Your task to perform on an android device: turn on data saver in the chrome app Image 0: 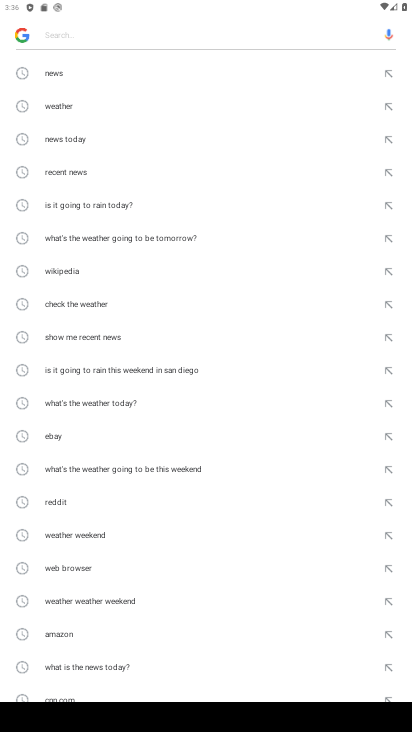
Step 0: press home button
Your task to perform on an android device: turn on data saver in the chrome app Image 1: 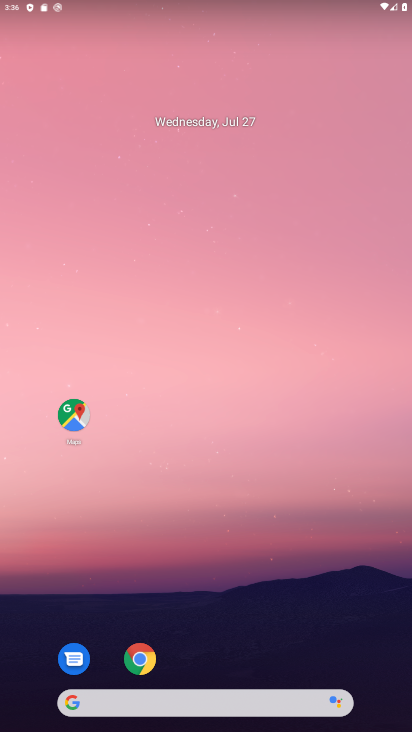
Step 1: click (132, 658)
Your task to perform on an android device: turn on data saver in the chrome app Image 2: 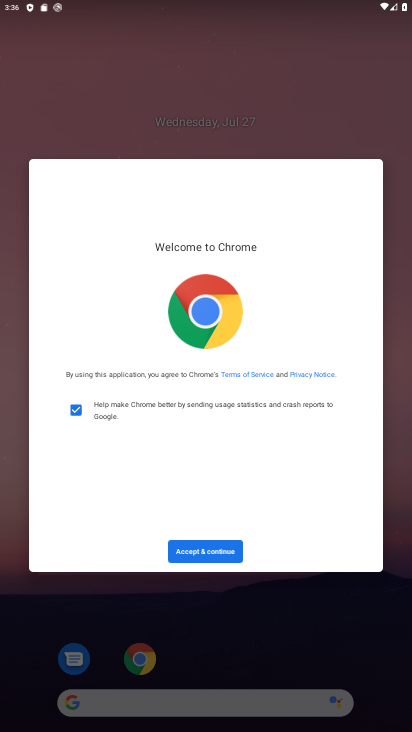
Step 2: click (203, 545)
Your task to perform on an android device: turn on data saver in the chrome app Image 3: 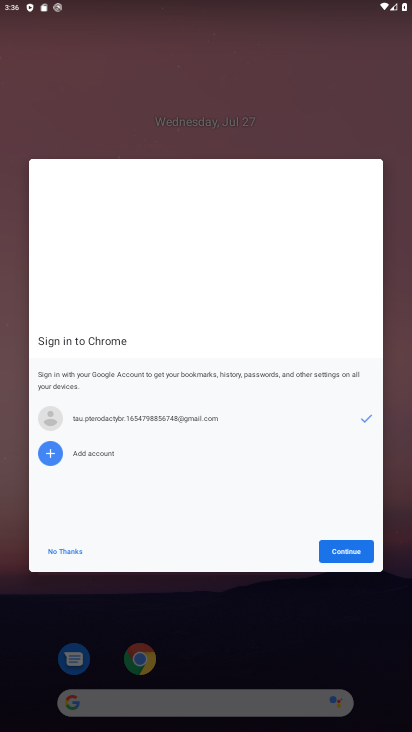
Step 3: click (350, 541)
Your task to perform on an android device: turn on data saver in the chrome app Image 4: 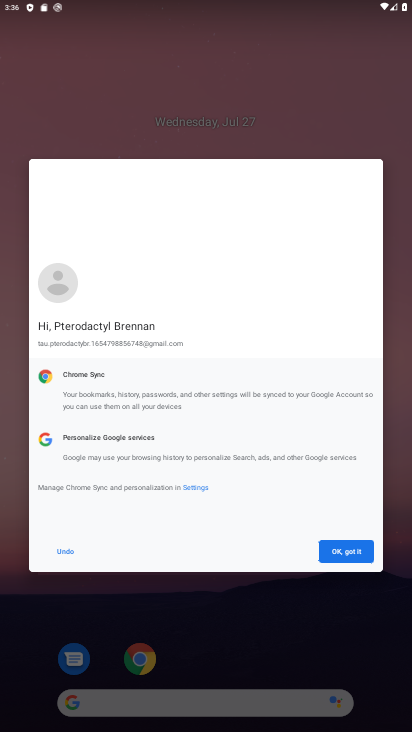
Step 4: click (350, 541)
Your task to perform on an android device: turn on data saver in the chrome app Image 5: 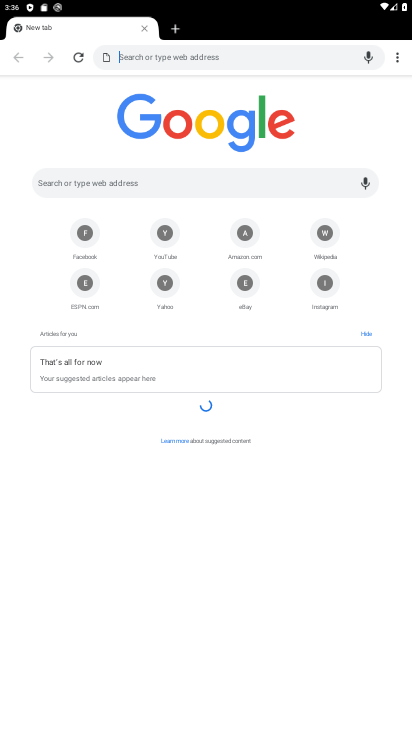
Step 5: click (399, 61)
Your task to perform on an android device: turn on data saver in the chrome app Image 6: 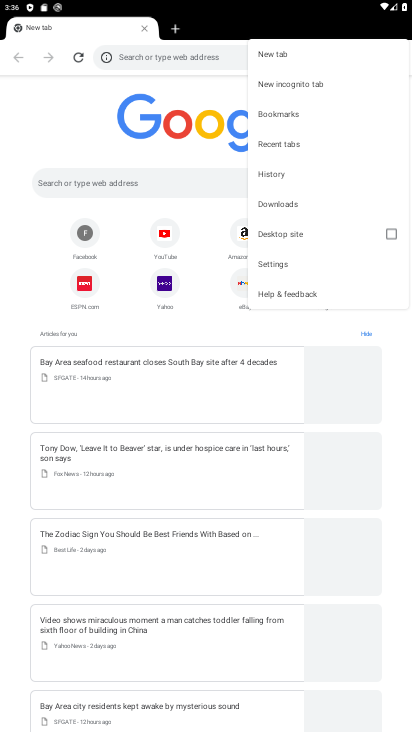
Step 6: click (285, 262)
Your task to perform on an android device: turn on data saver in the chrome app Image 7: 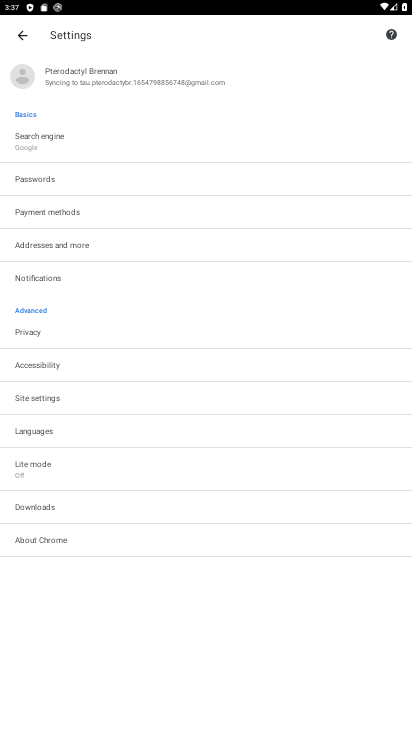
Step 7: click (41, 463)
Your task to perform on an android device: turn on data saver in the chrome app Image 8: 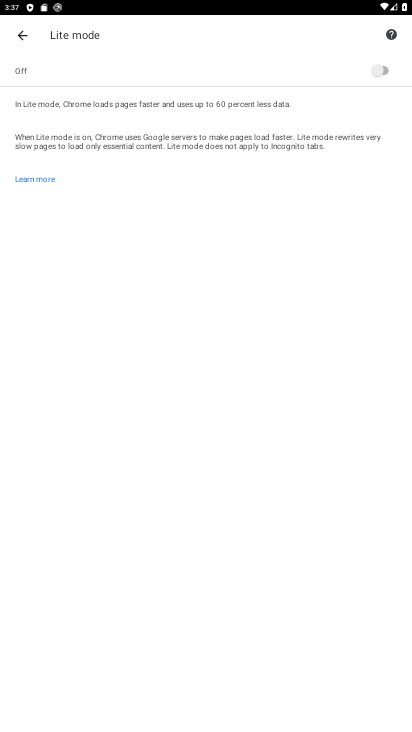
Step 8: click (389, 72)
Your task to perform on an android device: turn on data saver in the chrome app Image 9: 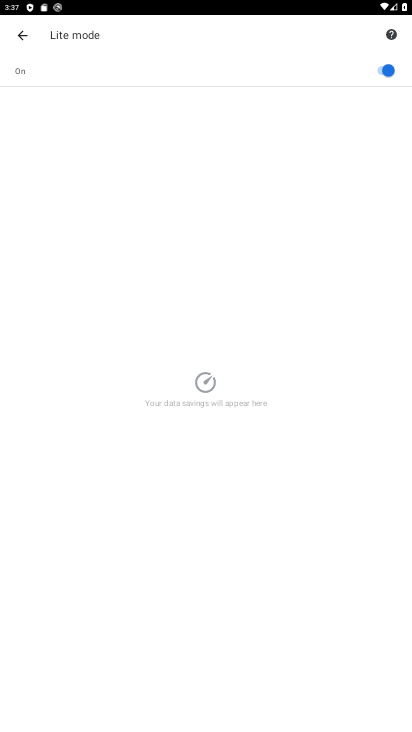
Step 9: task complete